Your task to perform on an android device: turn off notifications in google photos Image 0: 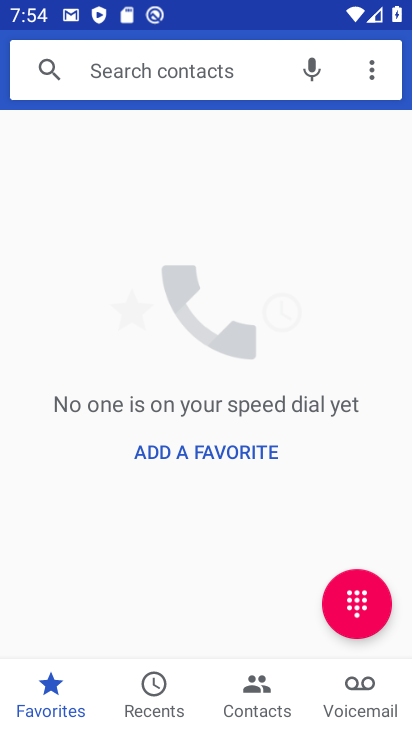
Step 0: press home button
Your task to perform on an android device: turn off notifications in google photos Image 1: 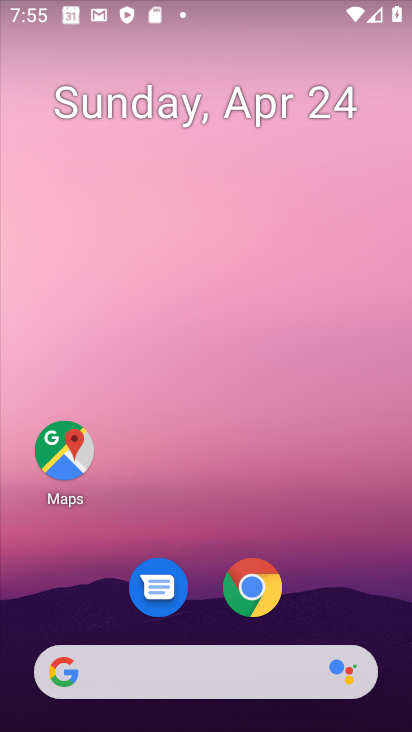
Step 1: drag from (333, 536) to (70, 220)
Your task to perform on an android device: turn off notifications in google photos Image 2: 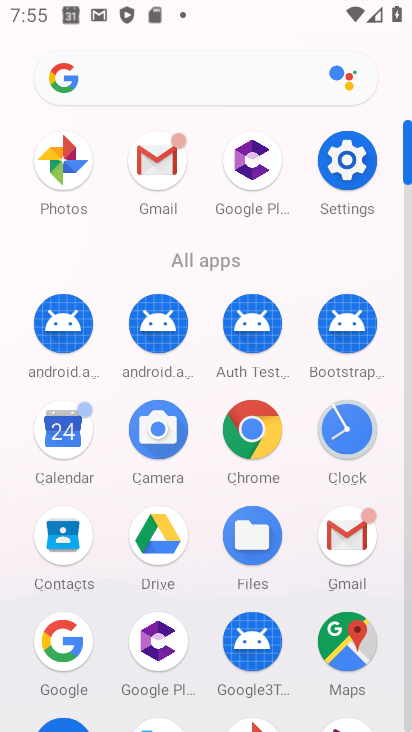
Step 2: click (70, 188)
Your task to perform on an android device: turn off notifications in google photos Image 3: 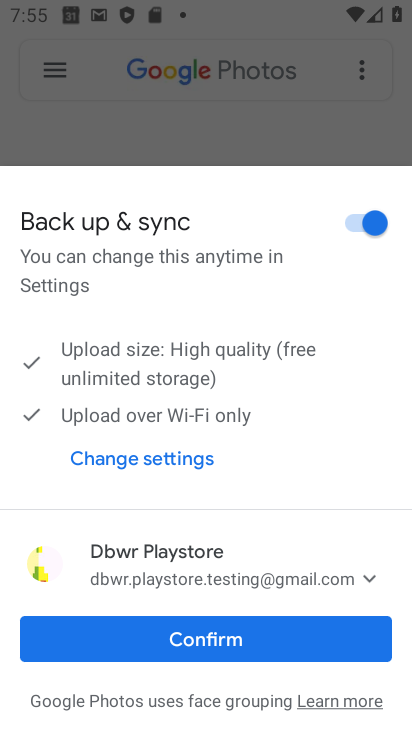
Step 3: click (179, 631)
Your task to perform on an android device: turn off notifications in google photos Image 4: 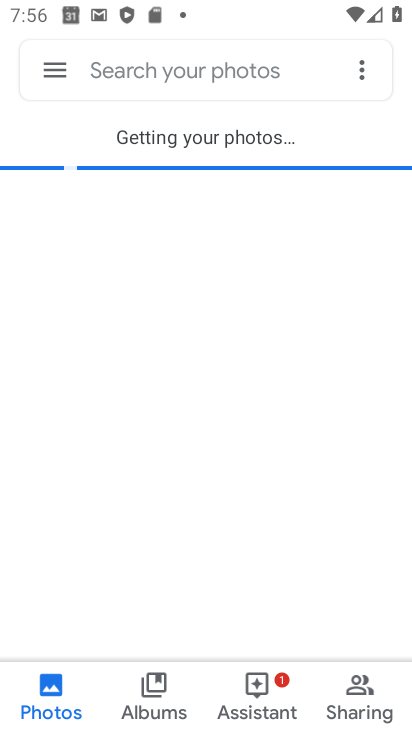
Step 4: click (64, 73)
Your task to perform on an android device: turn off notifications in google photos Image 5: 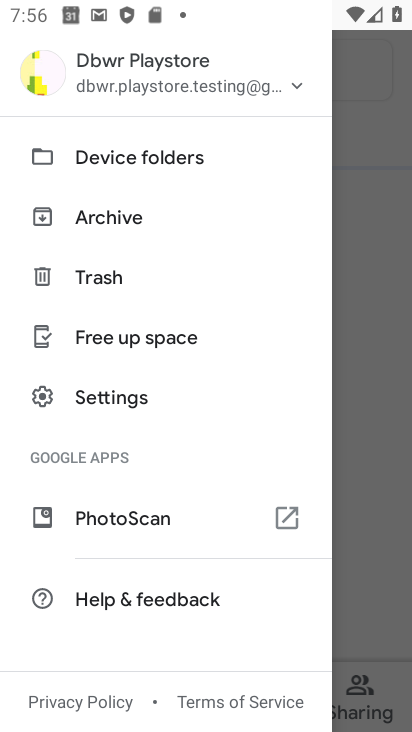
Step 5: click (140, 407)
Your task to perform on an android device: turn off notifications in google photos Image 6: 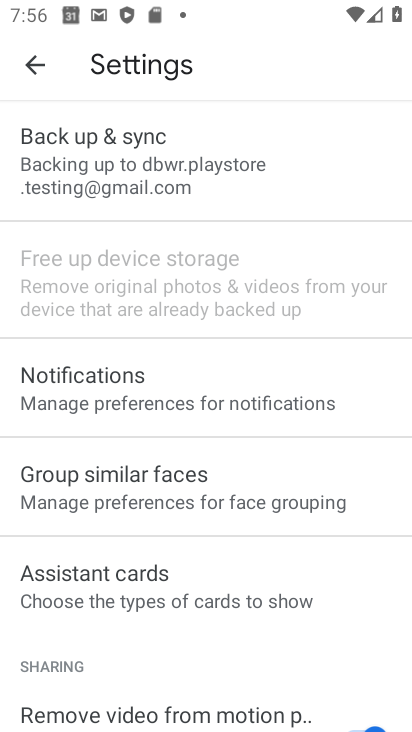
Step 6: click (153, 415)
Your task to perform on an android device: turn off notifications in google photos Image 7: 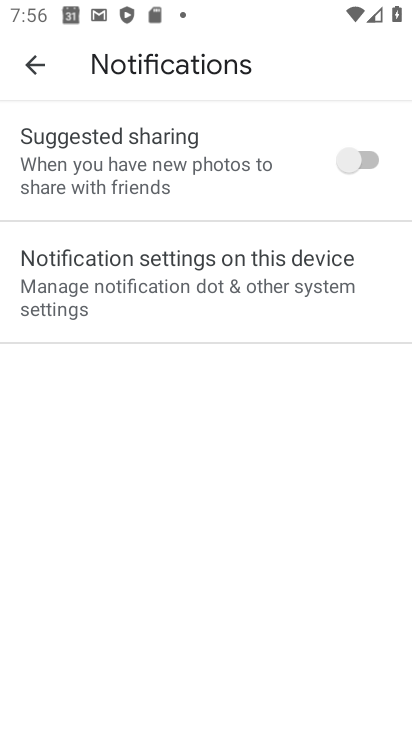
Step 7: click (124, 291)
Your task to perform on an android device: turn off notifications in google photos Image 8: 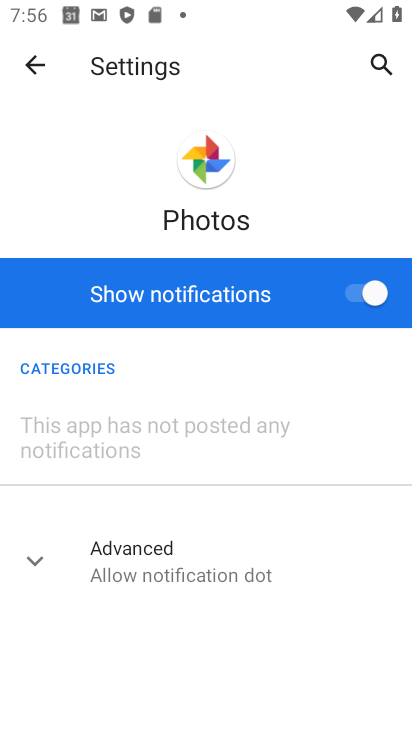
Step 8: click (365, 295)
Your task to perform on an android device: turn off notifications in google photos Image 9: 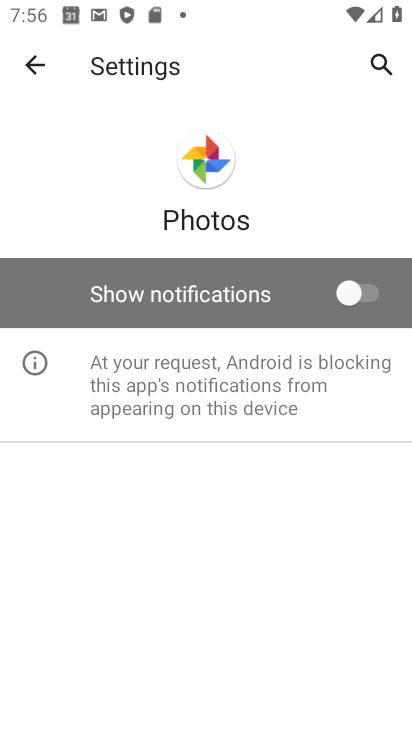
Step 9: task complete